Your task to perform on an android device: Open ESPN.com Image 0: 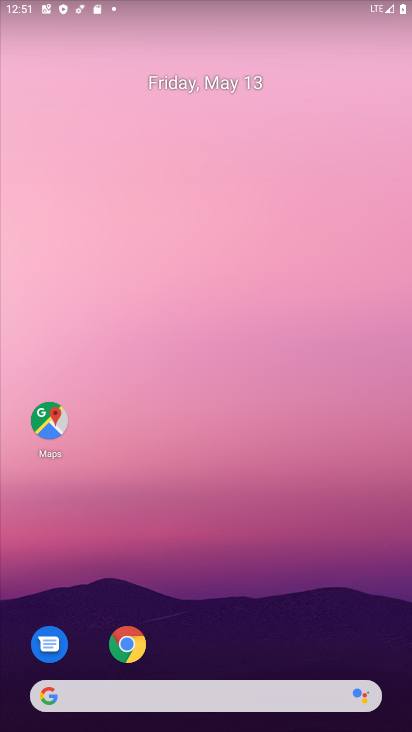
Step 0: drag from (320, 635) to (208, 132)
Your task to perform on an android device: Open ESPN.com Image 1: 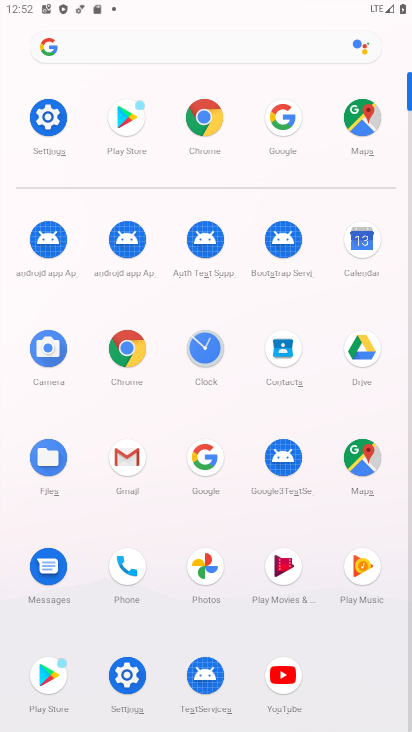
Step 1: click (127, 350)
Your task to perform on an android device: Open ESPN.com Image 2: 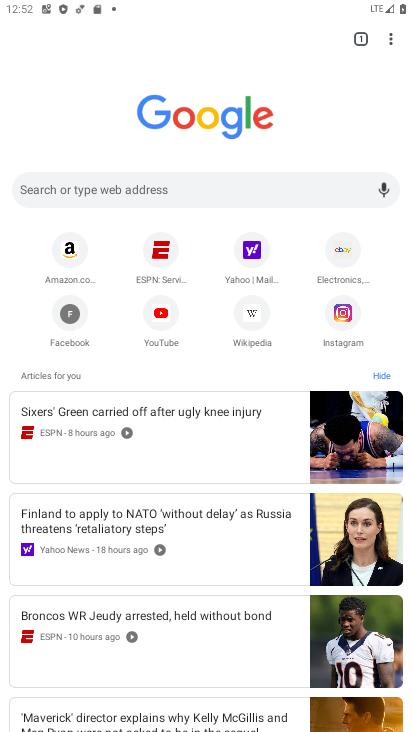
Step 2: click (166, 245)
Your task to perform on an android device: Open ESPN.com Image 3: 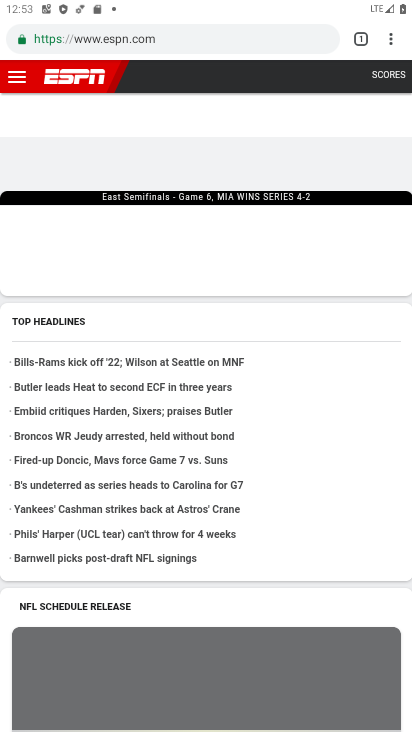
Step 3: task complete